Your task to perform on an android device: Open location settings Image 0: 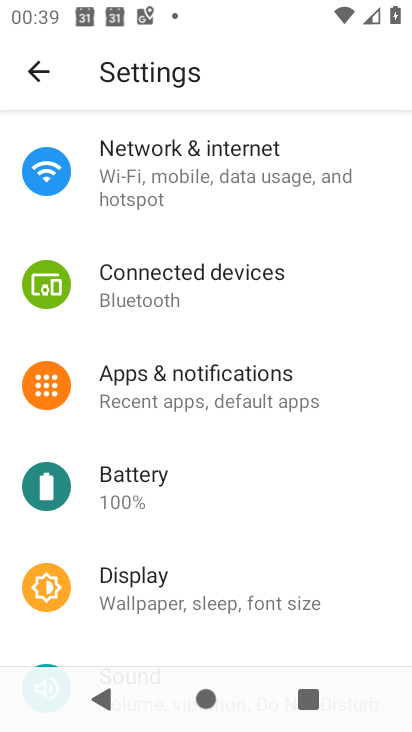
Step 0: drag from (206, 206) to (215, 74)
Your task to perform on an android device: Open location settings Image 1: 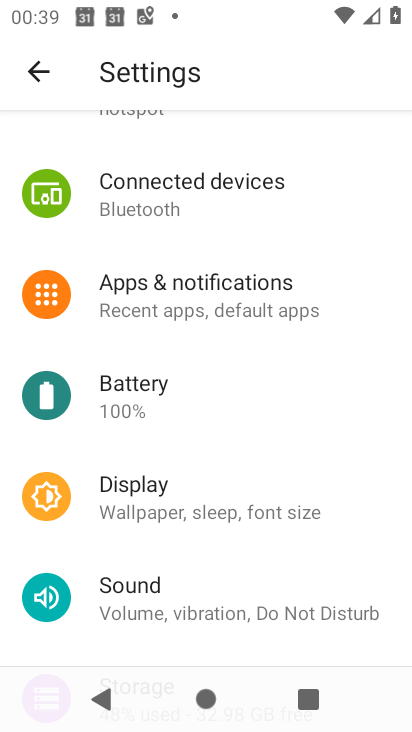
Step 1: drag from (192, 507) to (194, 96)
Your task to perform on an android device: Open location settings Image 2: 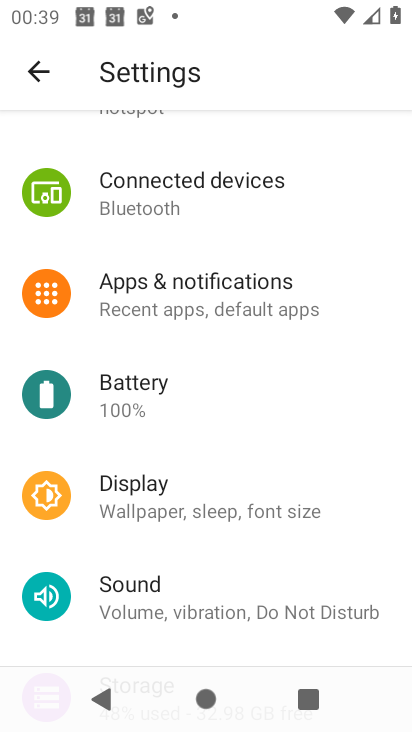
Step 2: drag from (190, 322) to (176, 202)
Your task to perform on an android device: Open location settings Image 3: 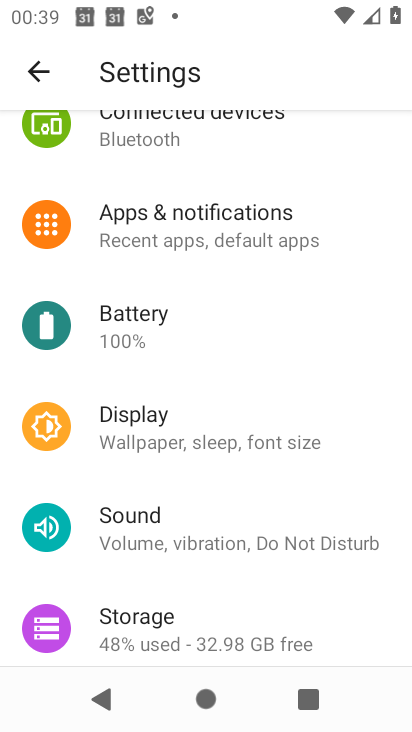
Step 3: drag from (214, 571) to (205, 176)
Your task to perform on an android device: Open location settings Image 4: 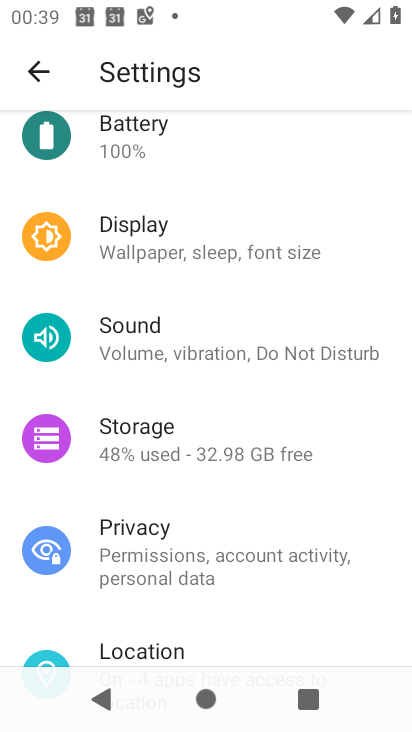
Step 4: click (165, 655)
Your task to perform on an android device: Open location settings Image 5: 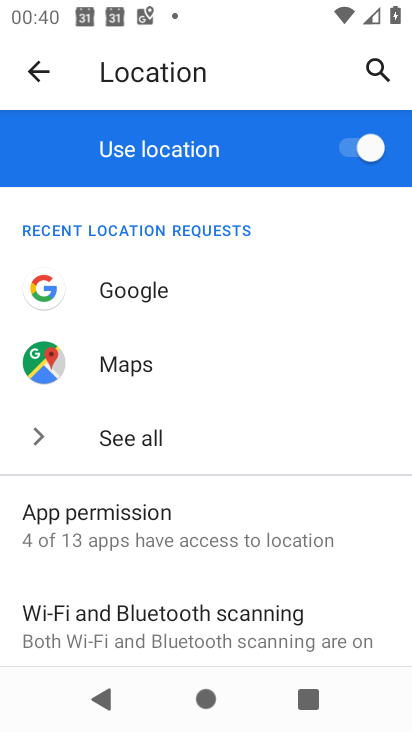
Step 5: task complete